Your task to perform on an android device: turn on sleep mode Image 0: 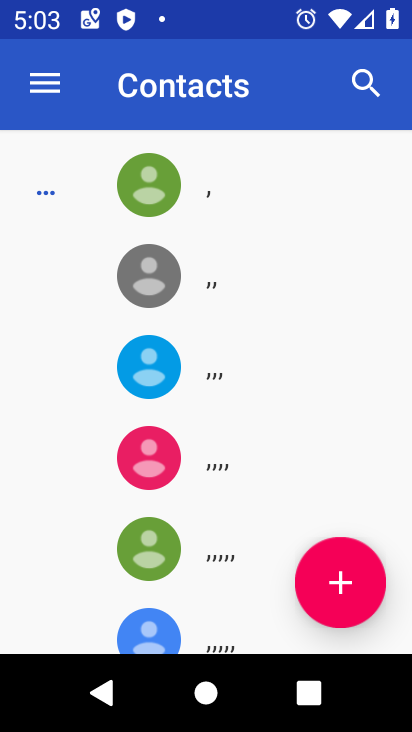
Step 0: press home button
Your task to perform on an android device: turn on sleep mode Image 1: 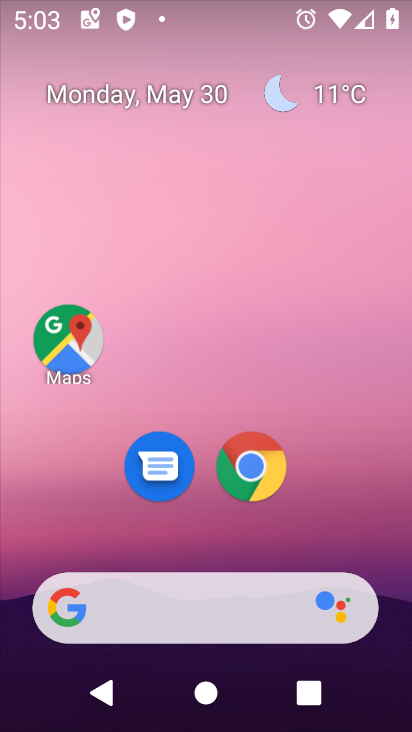
Step 1: drag from (346, 553) to (259, 71)
Your task to perform on an android device: turn on sleep mode Image 2: 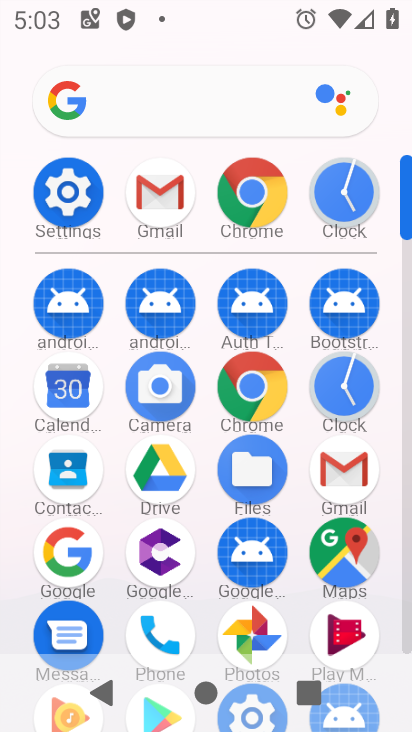
Step 2: click (82, 193)
Your task to perform on an android device: turn on sleep mode Image 3: 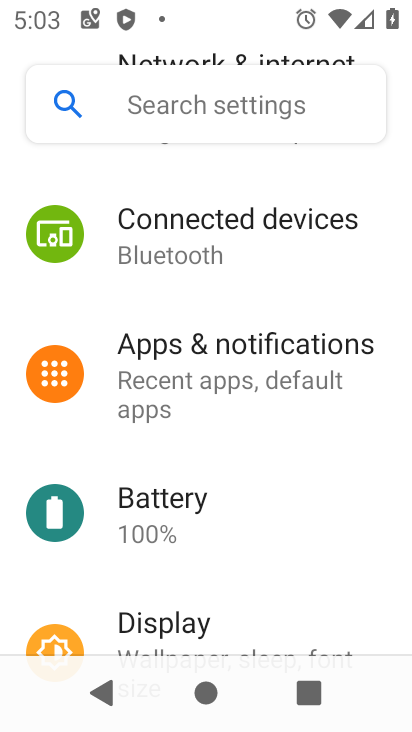
Step 3: drag from (303, 543) to (307, 287)
Your task to perform on an android device: turn on sleep mode Image 4: 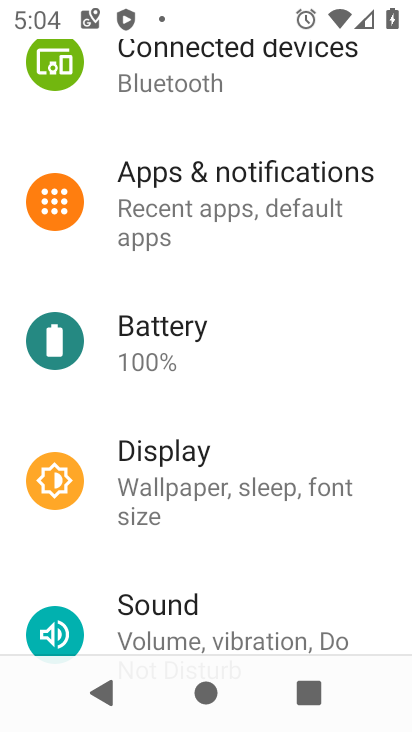
Step 4: click (177, 457)
Your task to perform on an android device: turn on sleep mode Image 5: 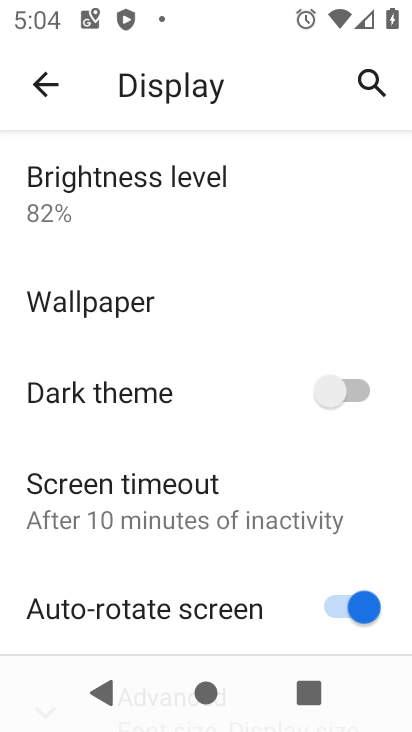
Step 5: click (173, 521)
Your task to perform on an android device: turn on sleep mode Image 6: 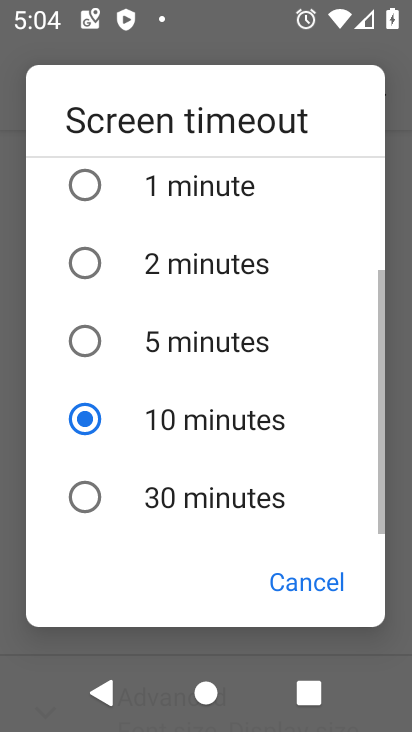
Step 6: task complete